Your task to perform on an android device: change the clock display to analog Image 0: 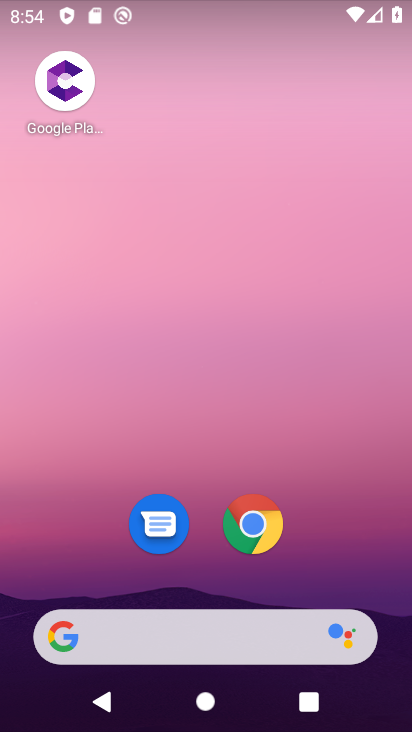
Step 0: drag from (316, 536) to (308, 72)
Your task to perform on an android device: change the clock display to analog Image 1: 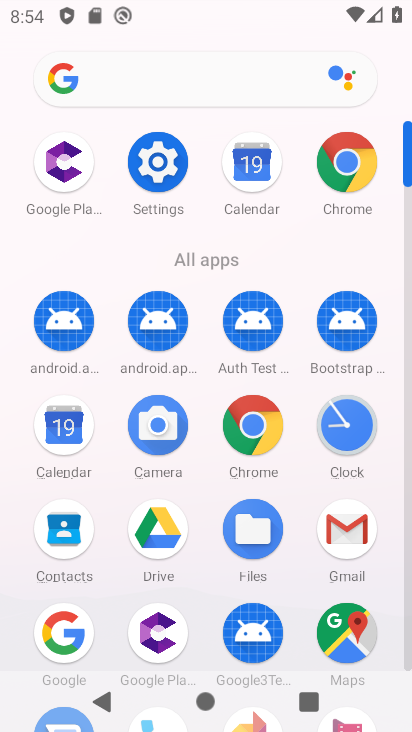
Step 1: click (349, 428)
Your task to perform on an android device: change the clock display to analog Image 2: 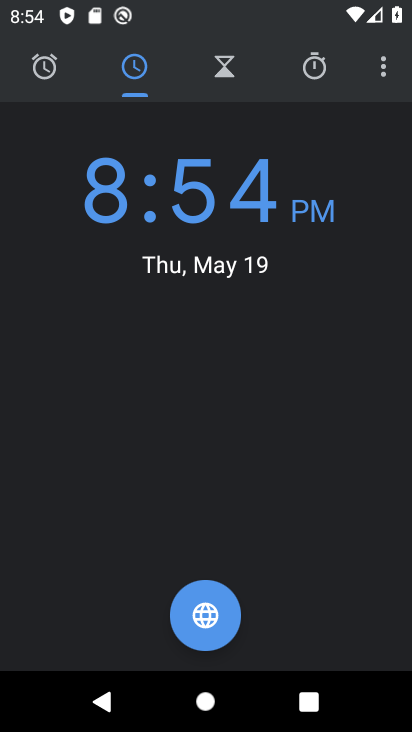
Step 2: click (380, 67)
Your task to perform on an android device: change the clock display to analog Image 3: 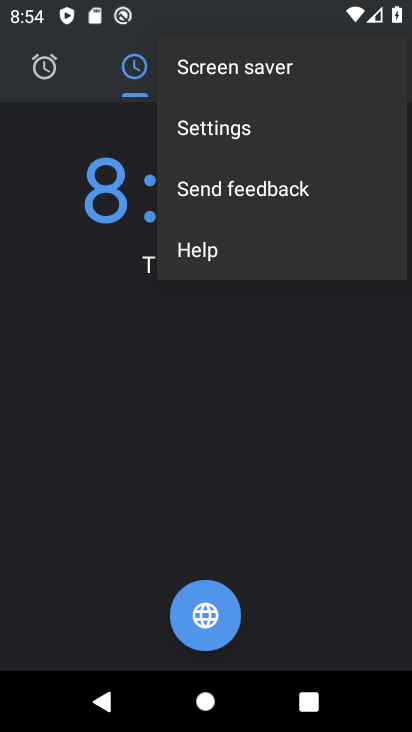
Step 3: click (289, 135)
Your task to perform on an android device: change the clock display to analog Image 4: 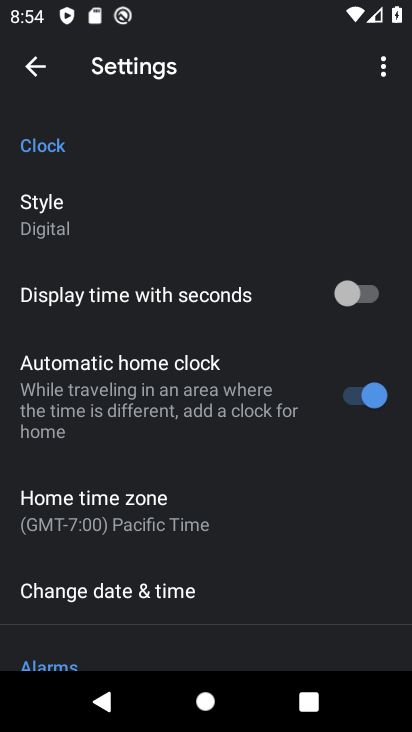
Step 4: click (104, 216)
Your task to perform on an android device: change the clock display to analog Image 5: 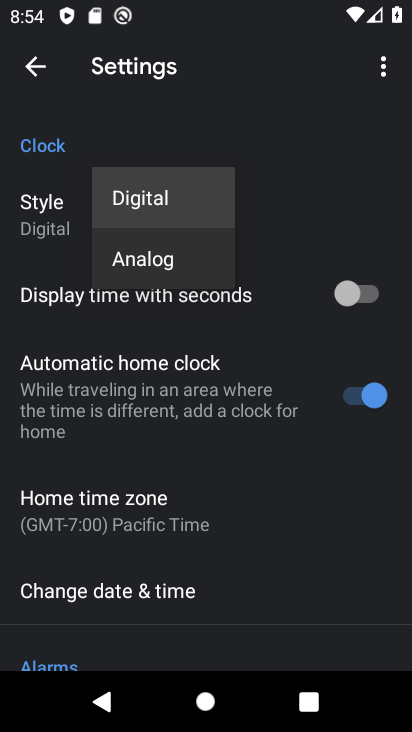
Step 5: click (146, 258)
Your task to perform on an android device: change the clock display to analog Image 6: 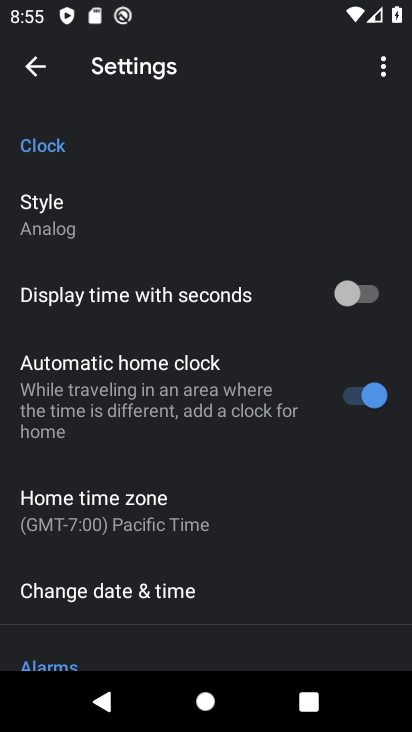
Step 6: click (38, 62)
Your task to perform on an android device: change the clock display to analog Image 7: 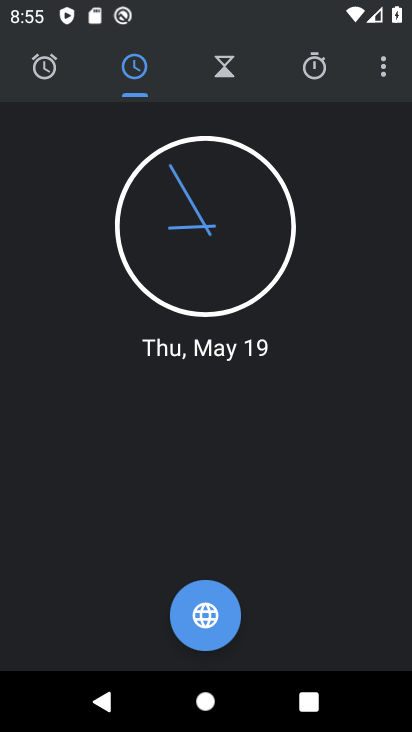
Step 7: task complete